Your task to perform on an android device: toggle improve location accuracy Image 0: 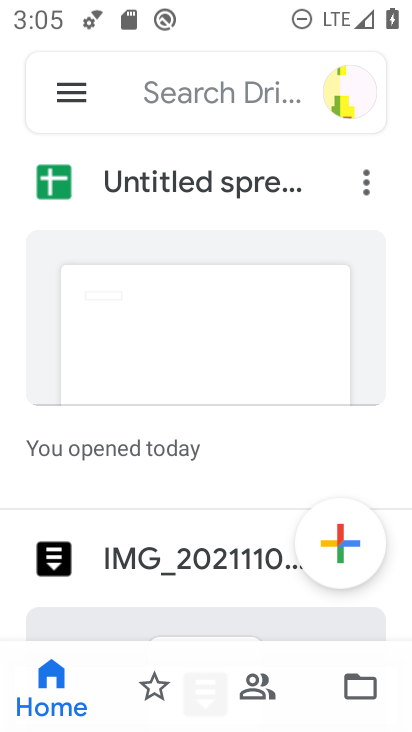
Step 0: press home button
Your task to perform on an android device: toggle improve location accuracy Image 1: 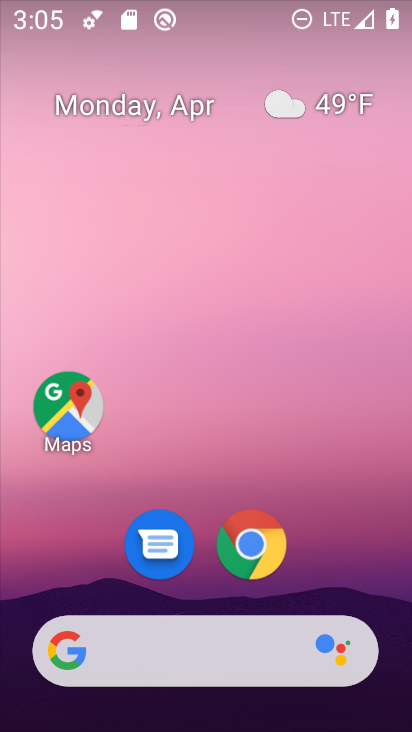
Step 1: drag from (327, 586) to (190, 15)
Your task to perform on an android device: toggle improve location accuracy Image 2: 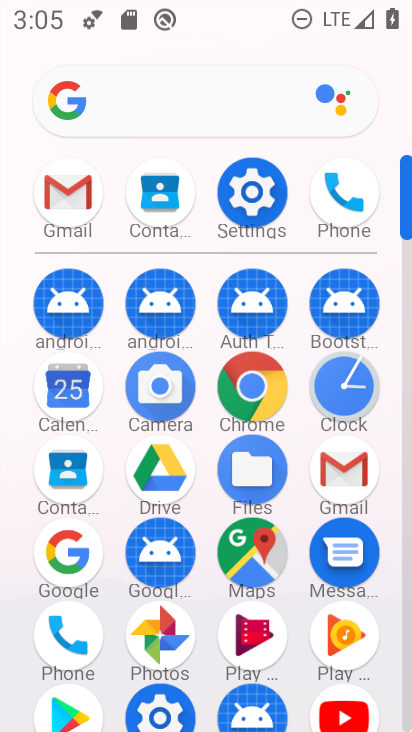
Step 2: click (254, 194)
Your task to perform on an android device: toggle improve location accuracy Image 3: 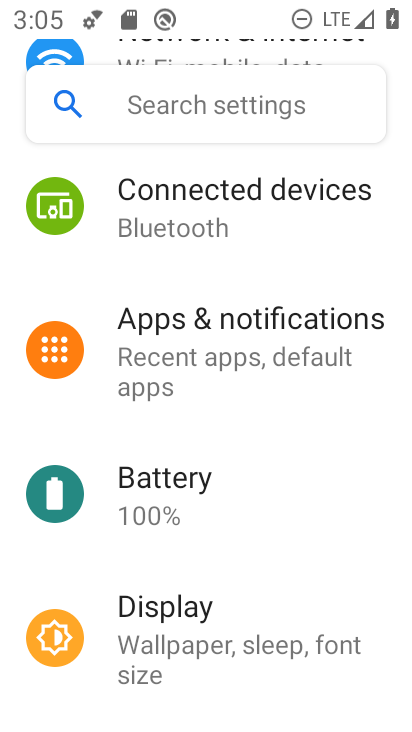
Step 3: drag from (268, 606) to (220, 158)
Your task to perform on an android device: toggle improve location accuracy Image 4: 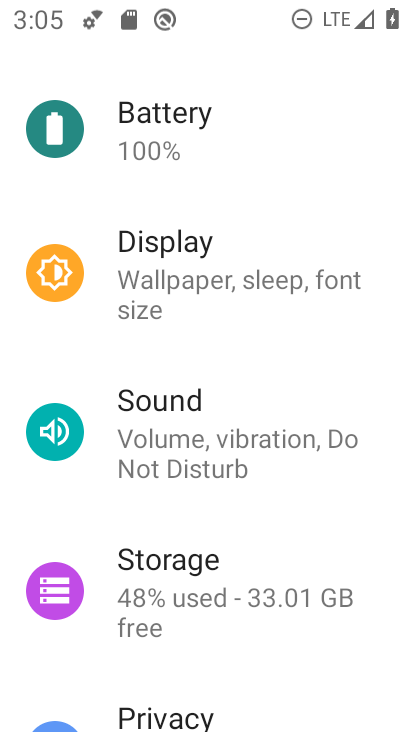
Step 4: drag from (268, 636) to (261, 49)
Your task to perform on an android device: toggle improve location accuracy Image 5: 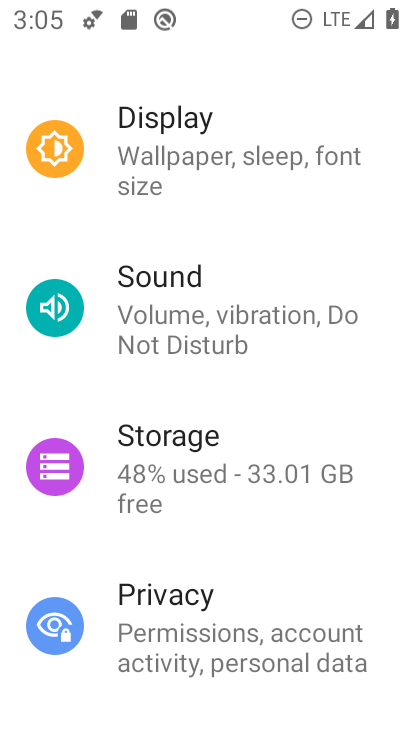
Step 5: drag from (252, 529) to (207, 198)
Your task to perform on an android device: toggle improve location accuracy Image 6: 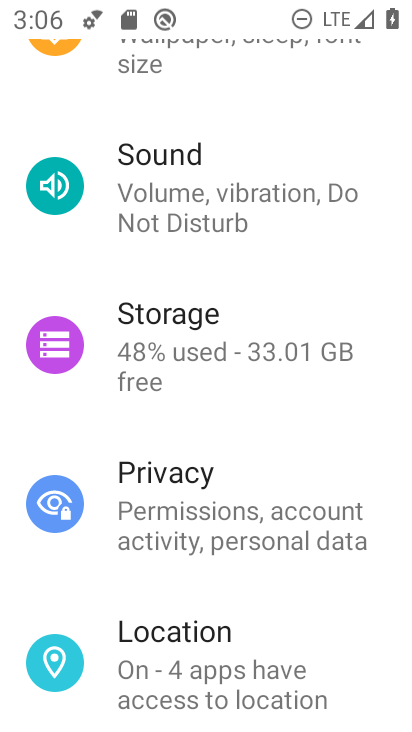
Step 6: click (183, 668)
Your task to perform on an android device: toggle improve location accuracy Image 7: 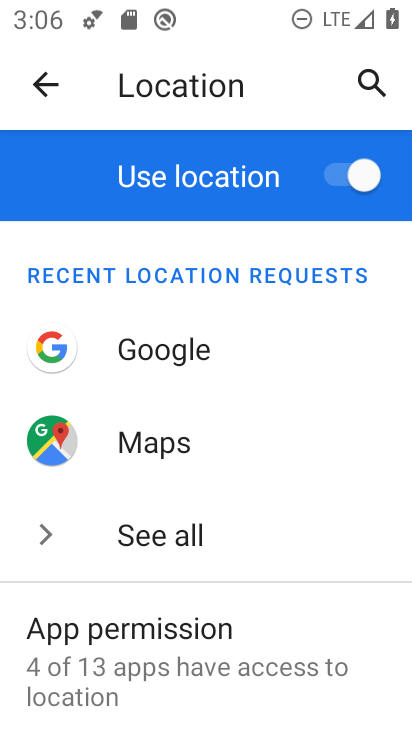
Step 7: drag from (278, 574) to (244, 174)
Your task to perform on an android device: toggle improve location accuracy Image 8: 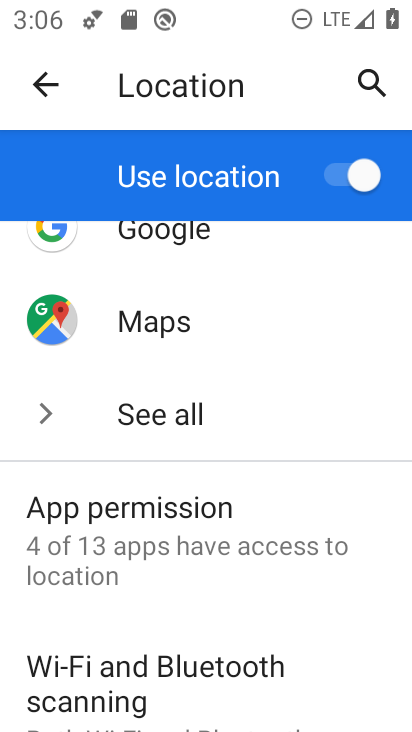
Step 8: drag from (215, 591) to (228, 205)
Your task to perform on an android device: toggle improve location accuracy Image 9: 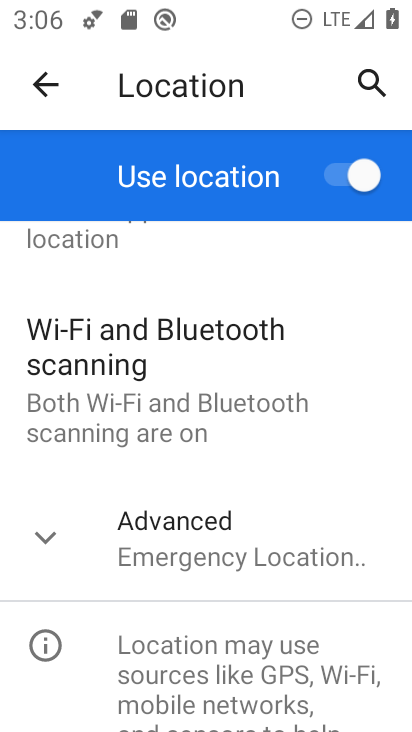
Step 9: click (217, 550)
Your task to perform on an android device: toggle improve location accuracy Image 10: 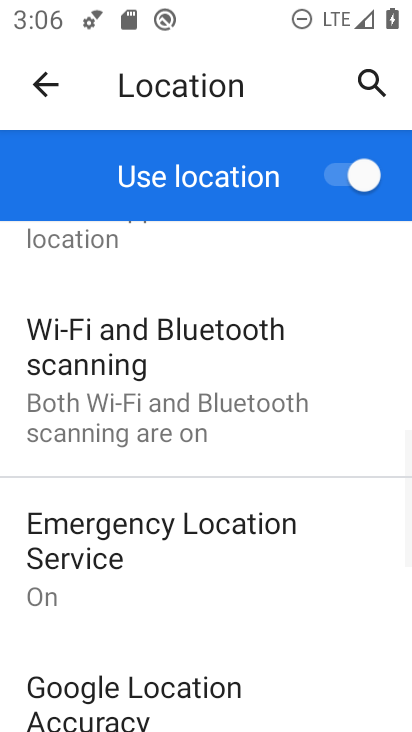
Step 10: drag from (201, 666) to (203, 364)
Your task to perform on an android device: toggle improve location accuracy Image 11: 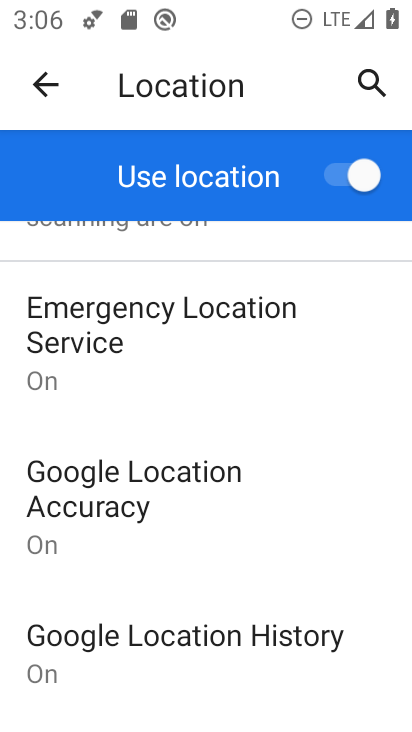
Step 11: drag from (213, 558) to (228, 291)
Your task to perform on an android device: toggle improve location accuracy Image 12: 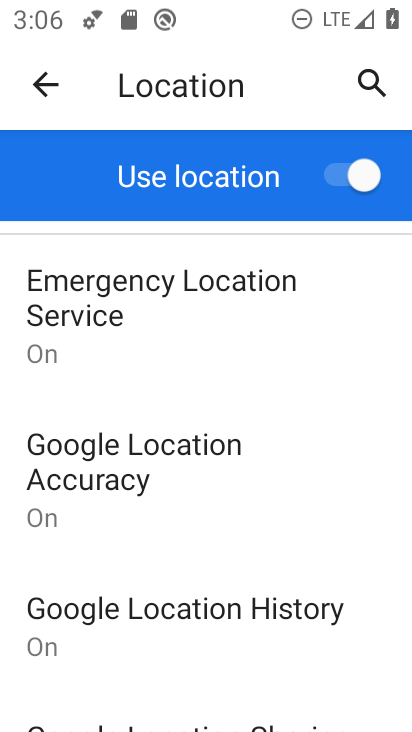
Step 12: drag from (220, 574) to (239, 259)
Your task to perform on an android device: toggle improve location accuracy Image 13: 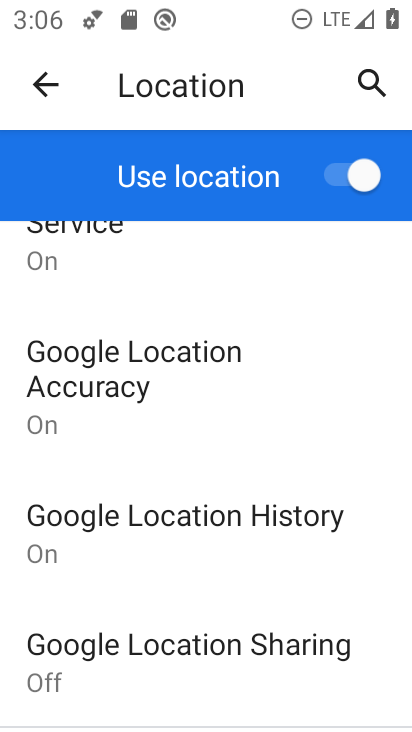
Step 13: click (94, 356)
Your task to perform on an android device: toggle improve location accuracy Image 14: 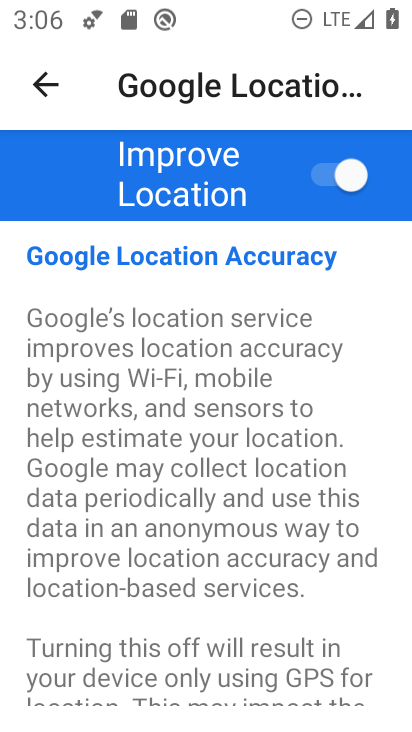
Step 14: click (341, 182)
Your task to perform on an android device: toggle improve location accuracy Image 15: 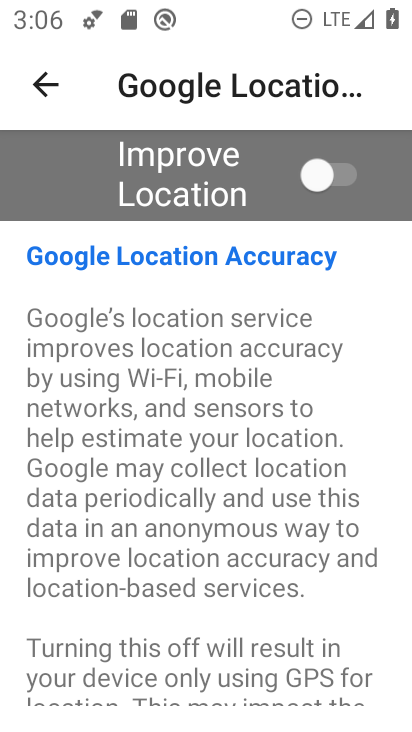
Step 15: task complete